Your task to perform on an android device: Open Maps and search for coffee Image 0: 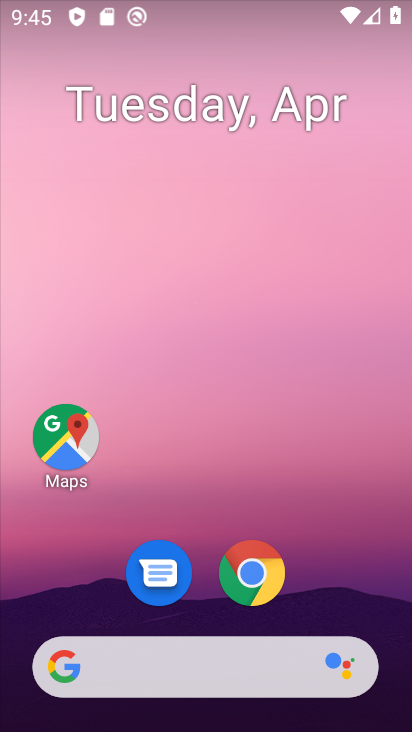
Step 0: click (76, 441)
Your task to perform on an android device: Open Maps and search for coffee Image 1: 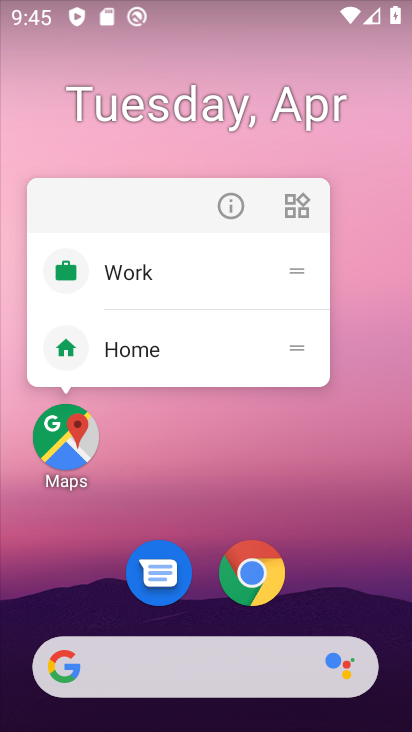
Step 1: click (75, 424)
Your task to perform on an android device: Open Maps and search for coffee Image 2: 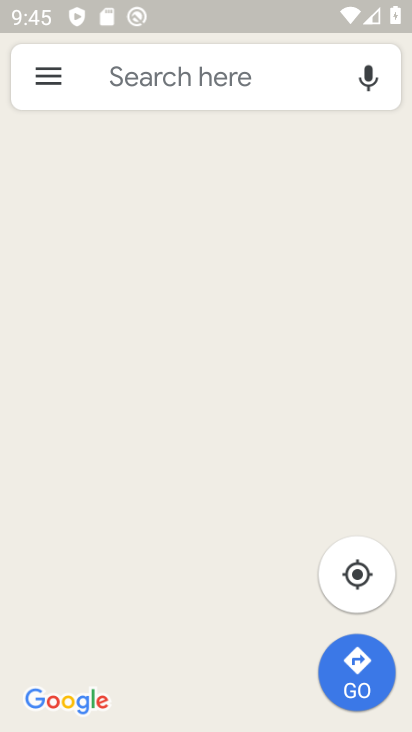
Step 2: click (235, 75)
Your task to perform on an android device: Open Maps and search for coffee Image 3: 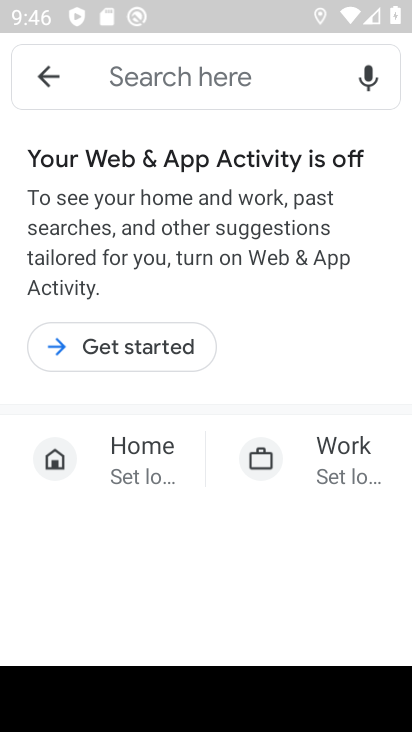
Step 3: type "coffee"
Your task to perform on an android device: Open Maps and search for coffee Image 4: 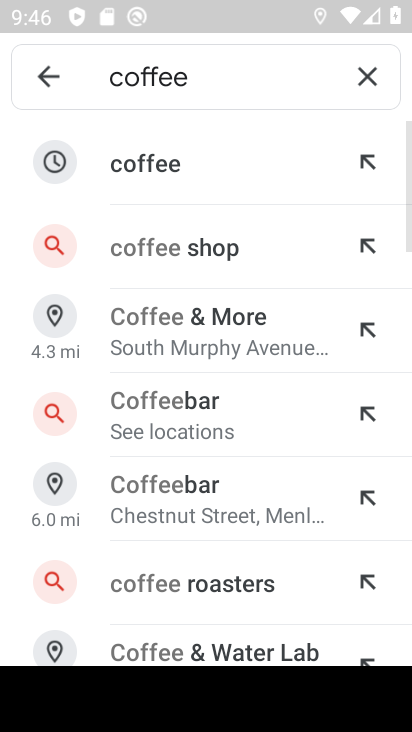
Step 4: click (198, 159)
Your task to perform on an android device: Open Maps and search for coffee Image 5: 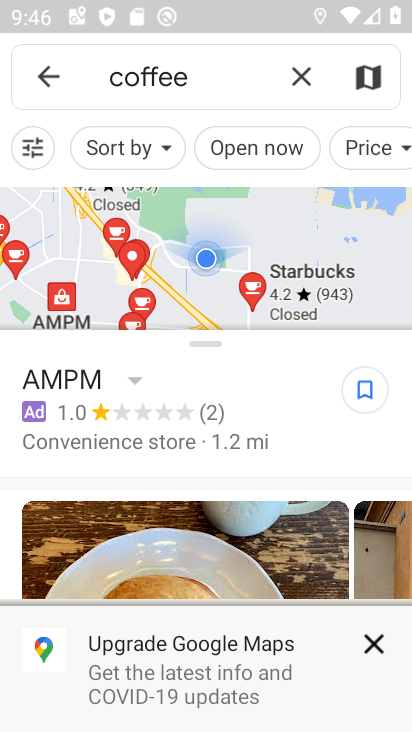
Step 5: task complete